Your task to perform on an android device: Go to eBay Image 0: 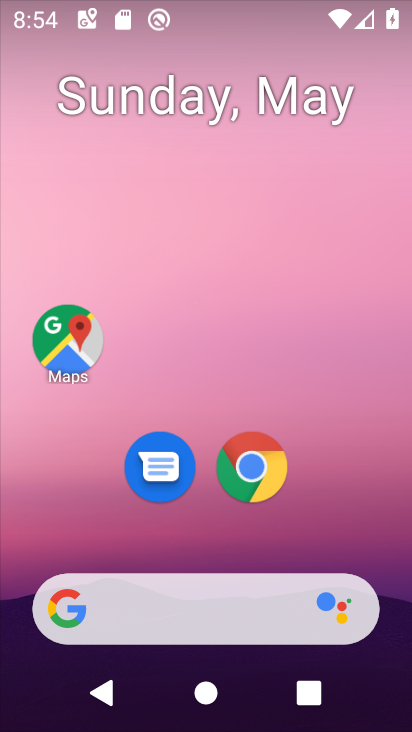
Step 0: drag from (357, 522) to (388, 120)
Your task to perform on an android device: Go to eBay Image 1: 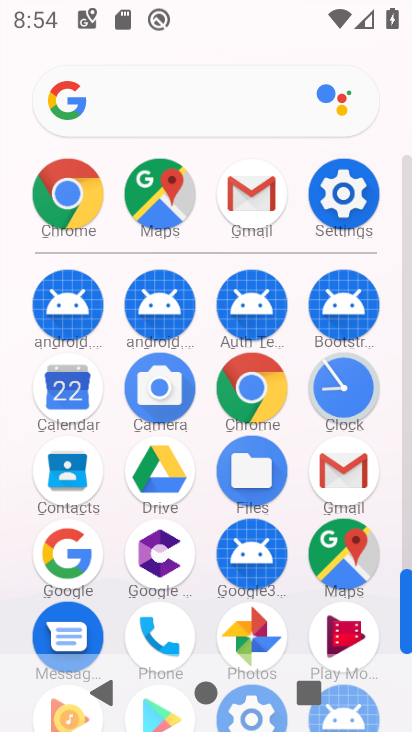
Step 1: click (349, 215)
Your task to perform on an android device: Go to eBay Image 2: 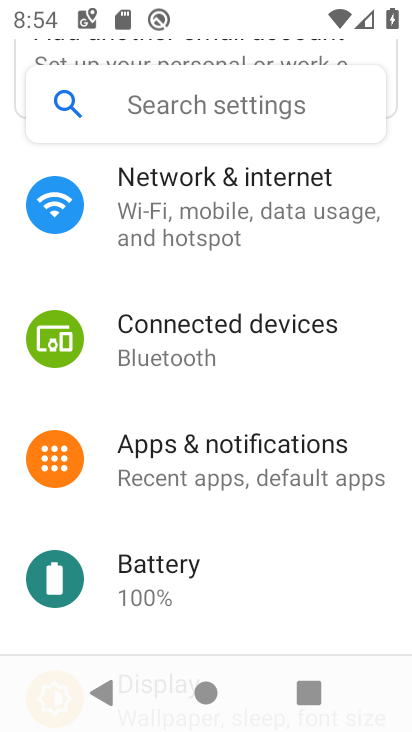
Step 2: press home button
Your task to perform on an android device: Go to eBay Image 3: 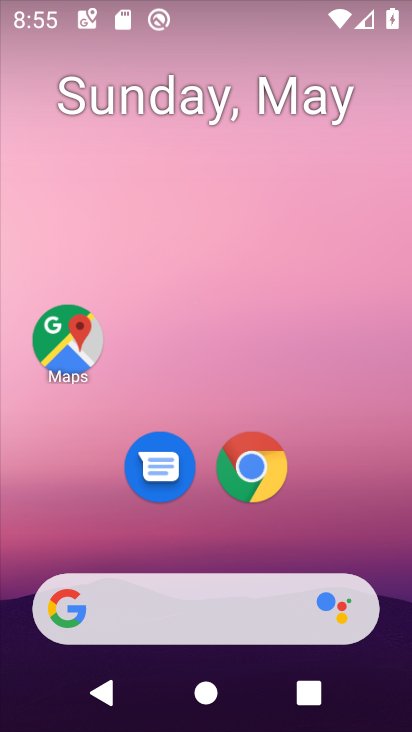
Step 3: drag from (364, 526) to (359, 280)
Your task to perform on an android device: Go to eBay Image 4: 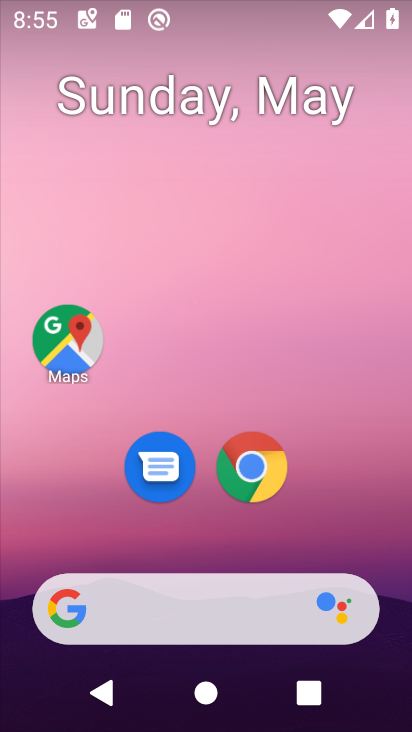
Step 4: click (288, 478)
Your task to perform on an android device: Go to eBay Image 5: 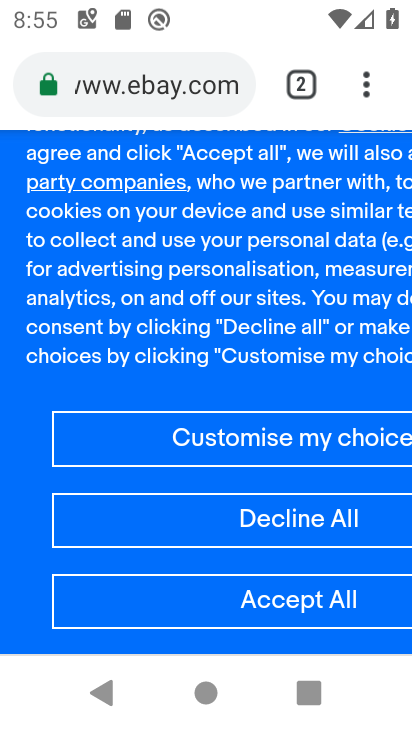
Step 5: task complete